Your task to perform on an android device: open app "Google Maps" Image 0: 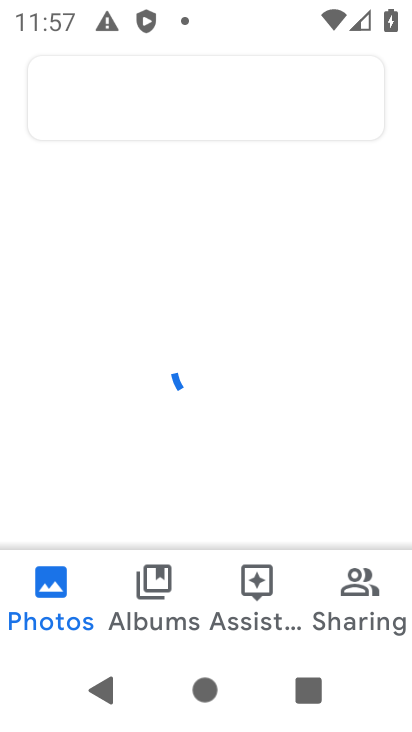
Step 0: press home button
Your task to perform on an android device: open app "Google Maps" Image 1: 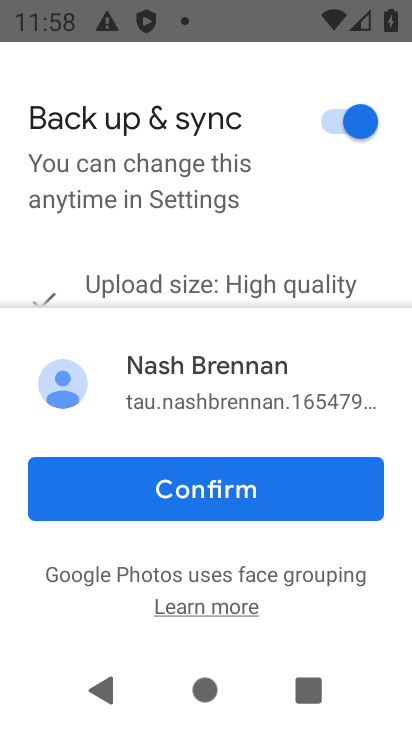
Step 1: click (295, 20)
Your task to perform on an android device: open app "Google Maps" Image 2: 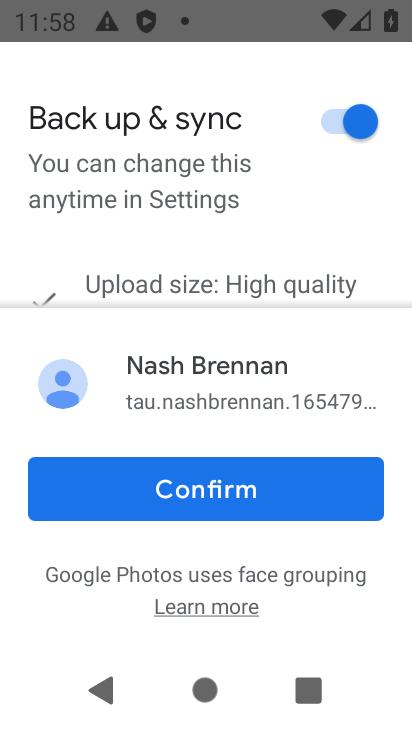
Step 2: press back button
Your task to perform on an android device: open app "Google Maps" Image 3: 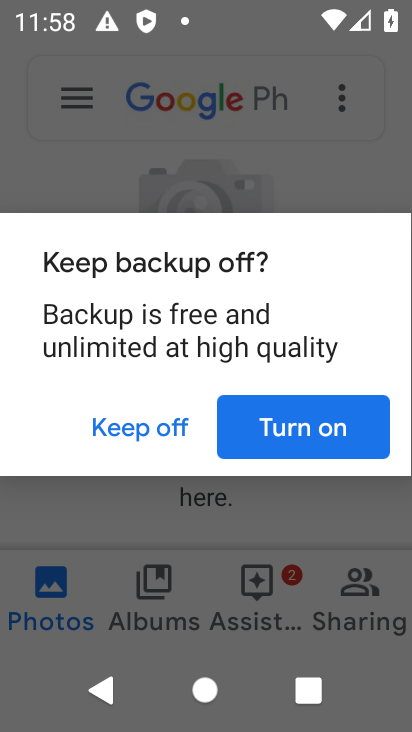
Step 3: click (125, 440)
Your task to perform on an android device: open app "Google Maps" Image 4: 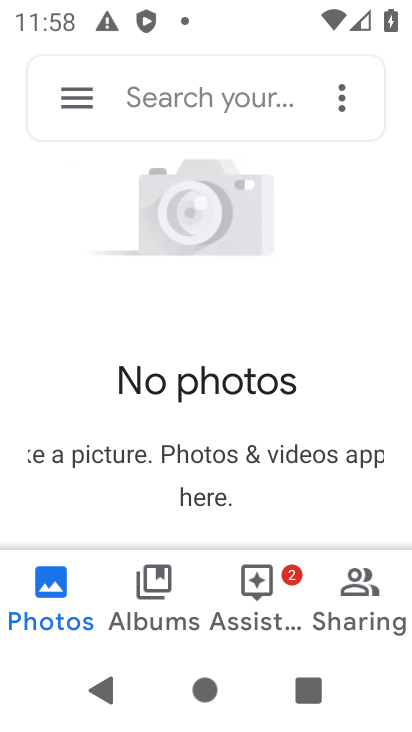
Step 4: press home button
Your task to perform on an android device: open app "Google Maps" Image 5: 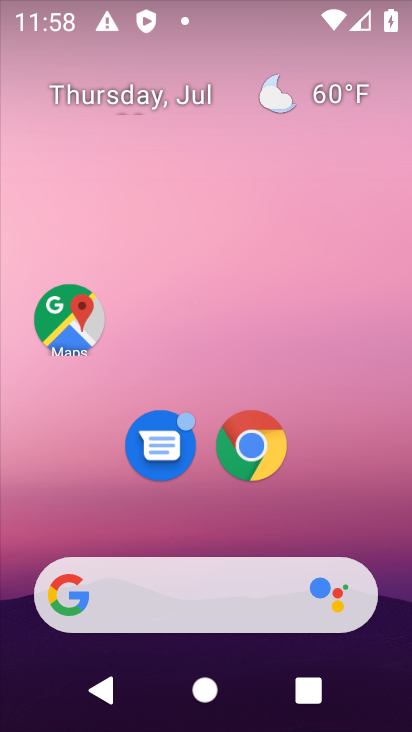
Step 5: click (82, 322)
Your task to perform on an android device: open app "Google Maps" Image 6: 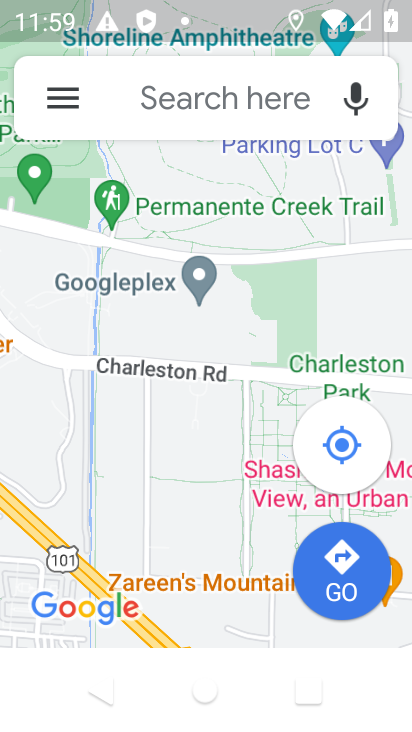
Step 6: task complete